Your task to perform on an android device: open chrome and create a bookmark for the current page Image 0: 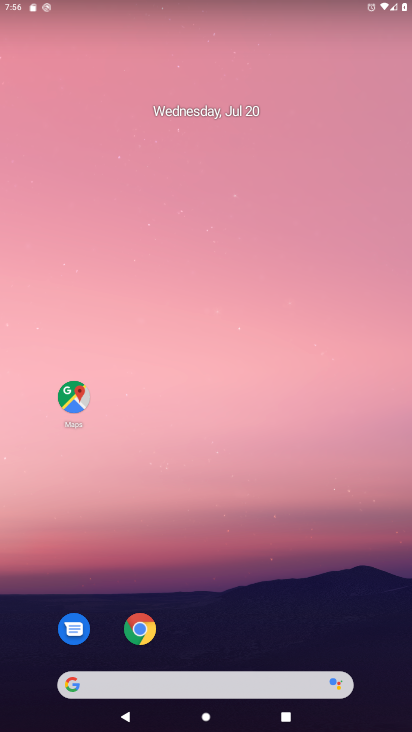
Step 0: click (136, 633)
Your task to perform on an android device: open chrome and create a bookmark for the current page Image 1: 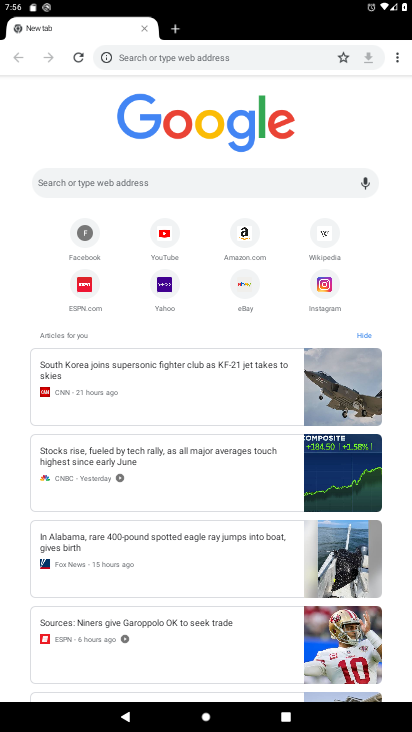
Step 1: click (344, 59)
Your task to perform on an android device: open chrome and create a bookmark for the current page Image 2: 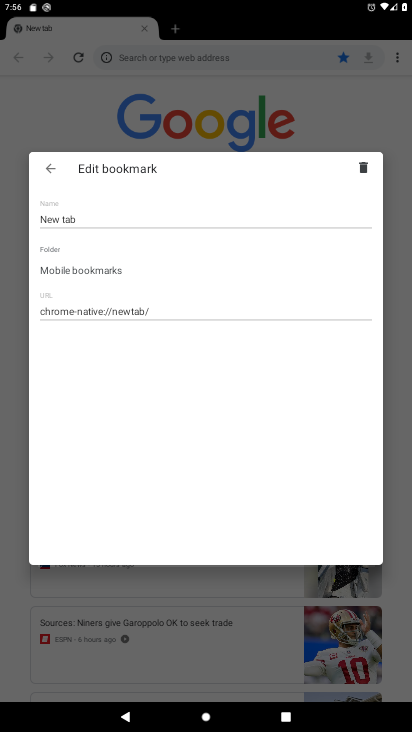
Step 2: click (360, 86)
Your task to perform on an android device: open chrome and create a bookmark for the current page Image 3: 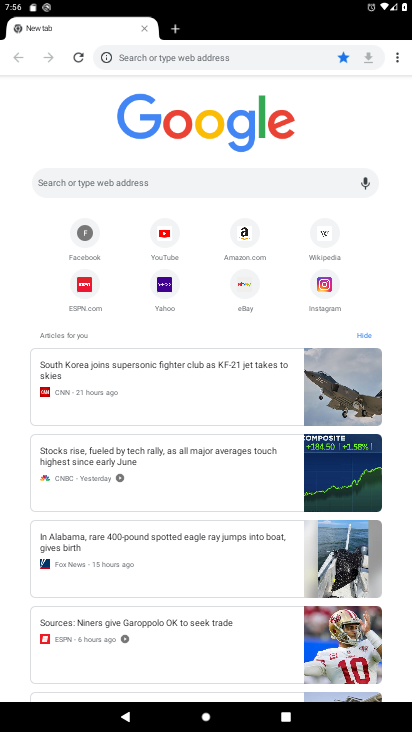
Step 3: task complete